Your task to perform on an android device: delete browsing data in the chrome app Image 0: 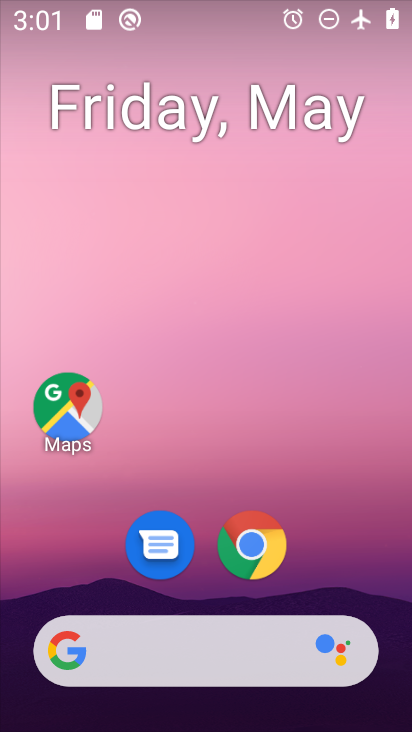
Step 0: drag from (334, 566) to (346, 290)
Your task to perform on an android device: delete browsing data in the chrome app Image 1: 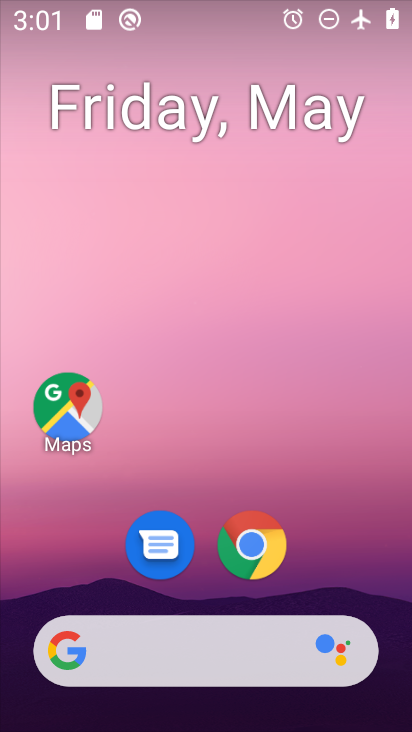
Step 1: click (272, 551)
Your task to perform on an android device: delete browsing data in the chrome app Image 2: 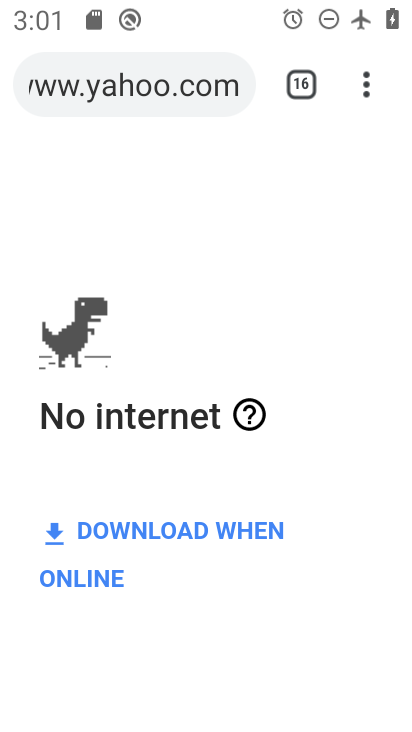
Step 2: click (364, 76)
Your task to perform on an android device: delete browsing data in the chrome app Image 3: 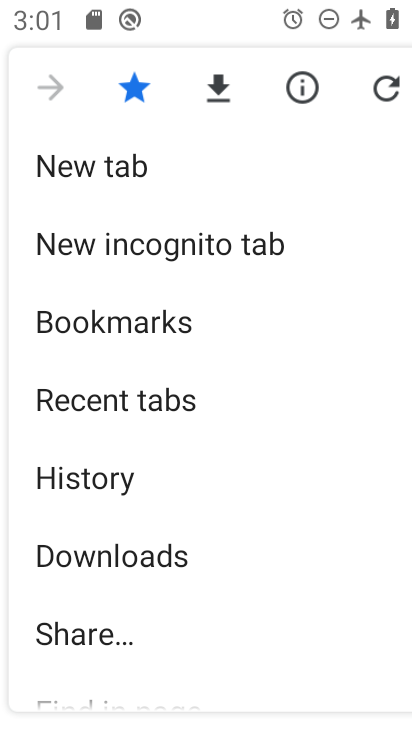
Step 3: click (134, 479)
Your task to perform on an android device: delete browsing data in the chrome app Image 4: 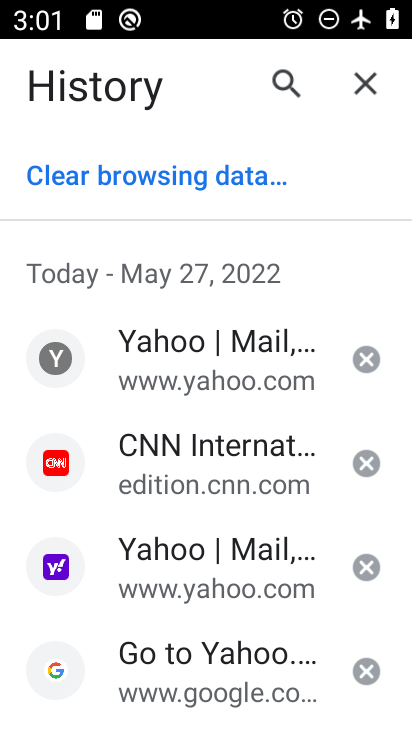
Step 4: click (151, 180)
Your task to perform on an android device: delete browsing data in the chrome app Image 5: 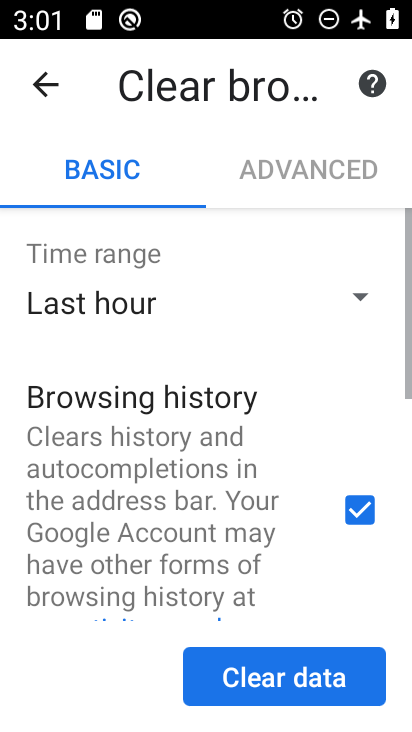
Step 5: click (274, 662)
Your task to perform on an android device: delete browsing data in the chrome app Image 6: 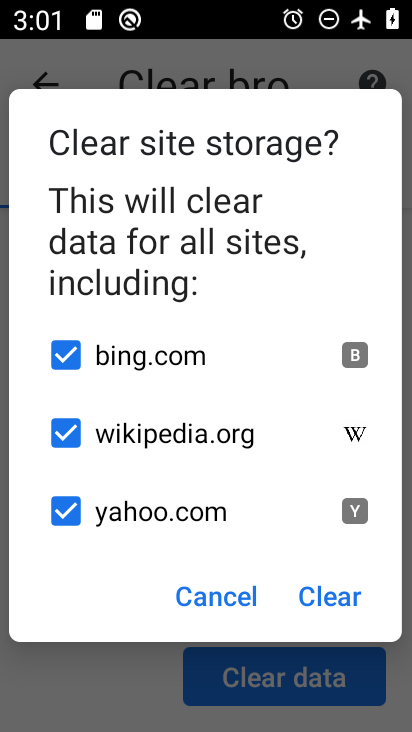
Step 6: click (347, 570)
Your task to perform on an android device: delete browsing data in the chrome app Image 7: 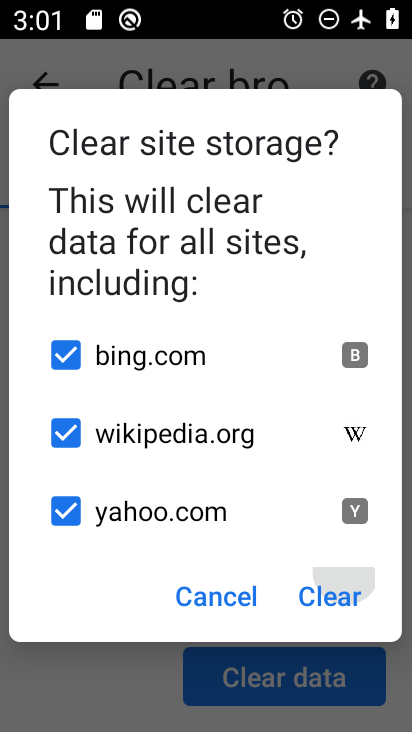
Step 7: click (346, 591)
Your task to perform on an android device: delete browsing data in the chrome app Image 8: 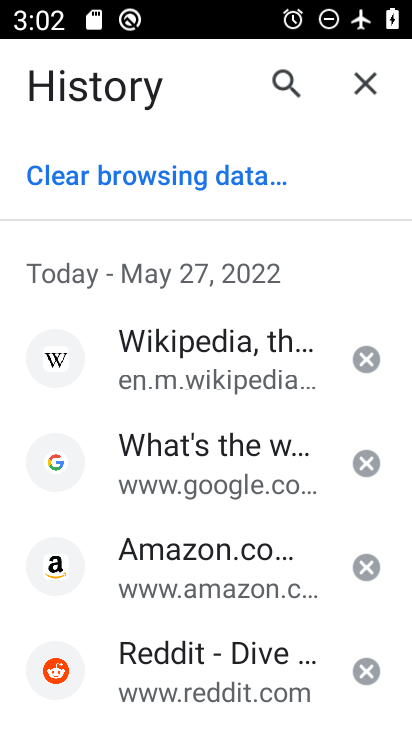
Step 8: click (180, 184)
Your task to perform on an android device: delete browsing data in the chrome app Image 9: 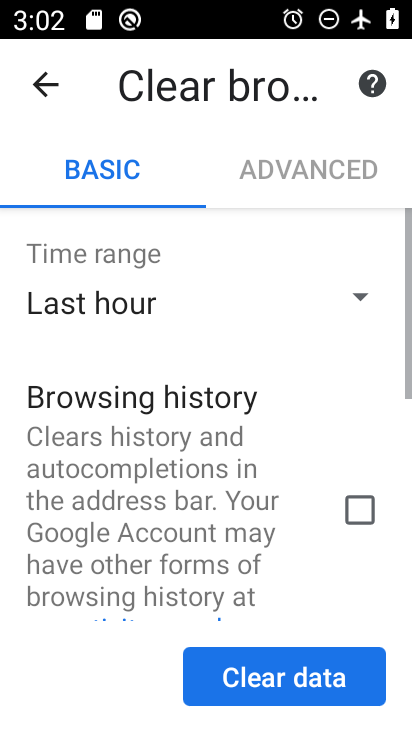
Step 9: click (348, 520)
Your task to perform on an android device: delete browsing data in the chrome app Image 10: 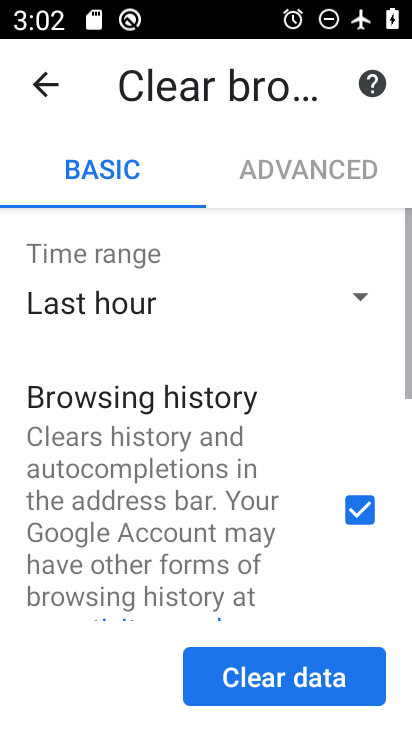
Step 10: click (290, 667)
Your task to perform on an android device: delete browsing data in the chrome app Image 11: 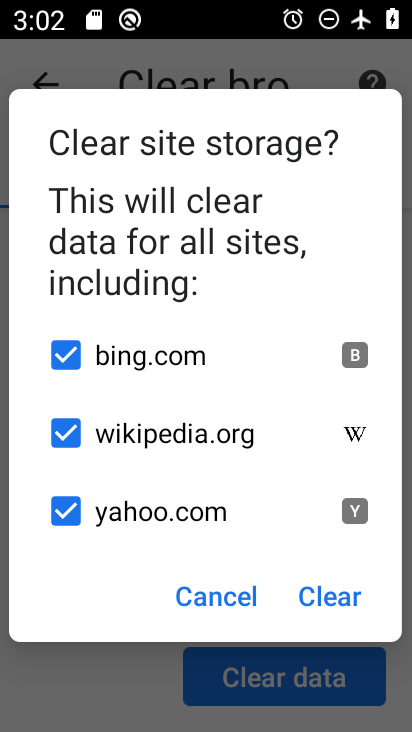
Step 11: click (320, 603)
Your task to perform on an android device: delete browsing data in the chrome app Image 12: 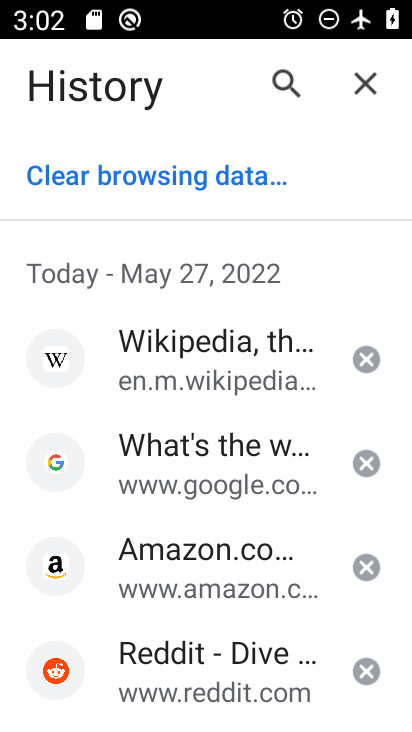
Step 12: click (160, 186)
Your task to perform on an android device: delete browsing data in the chrome app Image 13: 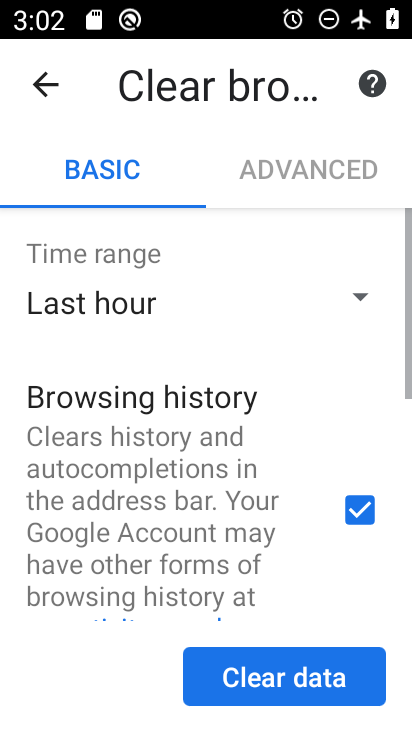
Step 13: drag from (230, 555) to (192, 235)
Your task to perform on an android device: delete browsing data in the chrome app Image 14: 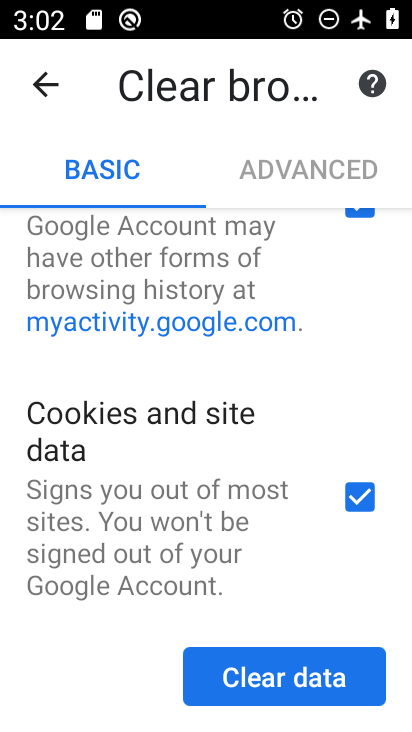
Step 14: drag from (235, 532) to (244, 266)
Your task to perform on an android device: delete browsing data in the chrome app Image 15: 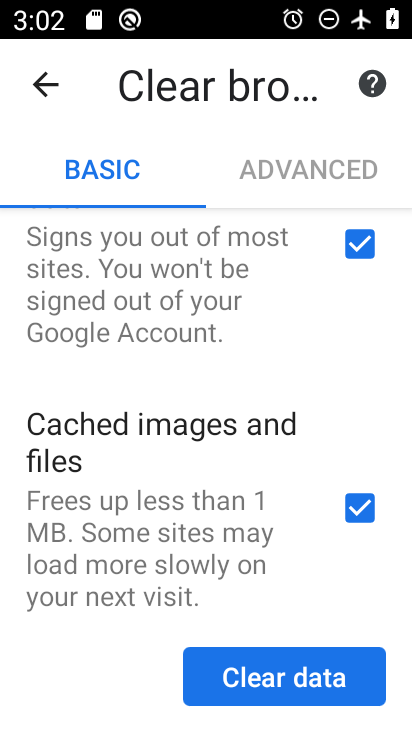
Step 15: click (292, 684)
Your task to perform on an android device: delete browsing data in the chrome app Image 16: 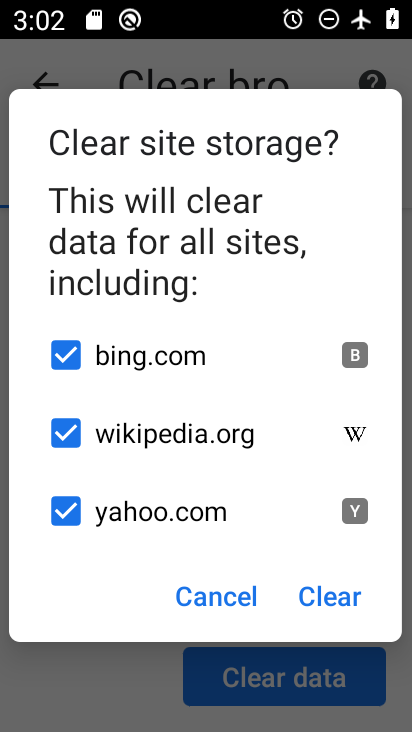
Step 16: click (311, 592)
Your task to perform on an android device: delete browsing data in the chrome app Image 17: 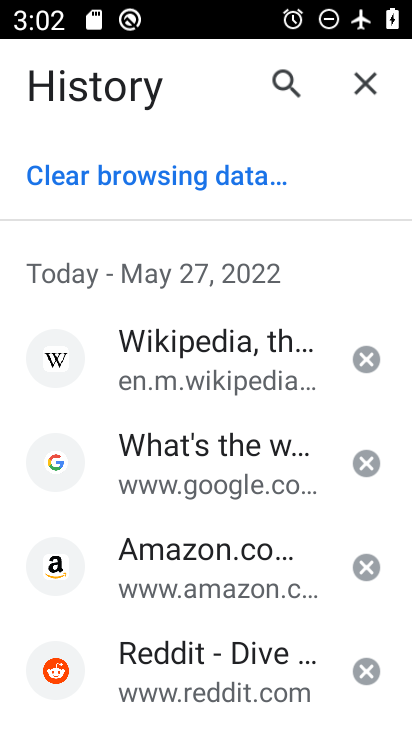
Step 17: task complete